Your task to perform on an android device: allow notifications from all sites in the chrome app Image 0: 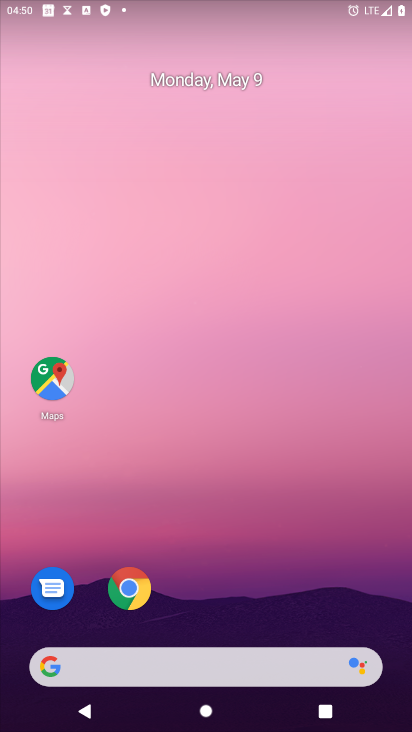
Step 0: click (137, 588)
Your task to perform on an android device: allow notifications from all sites in the chrome app Image 1: 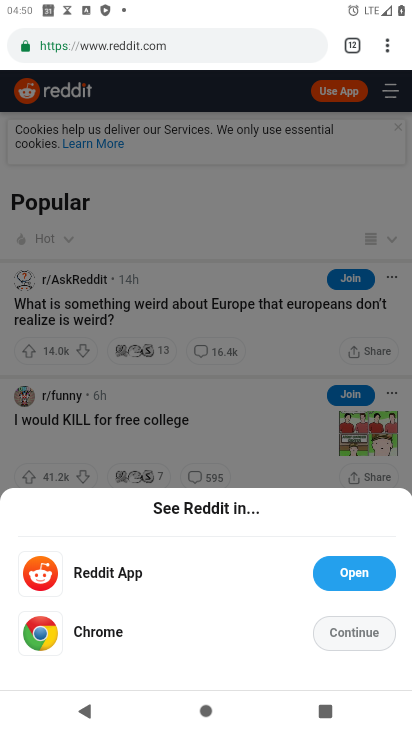
Step 1: click (381, 41)
Your task to perform on an android device: allow notifications from all sites in the chrome app Image 2: 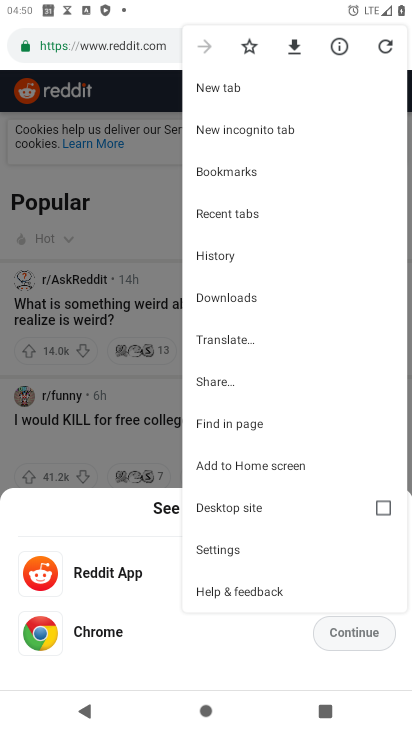
Step 2: click (239, 538)
Your task to perform on an android device: allow notifications from all sites in the chrome app Image 3: 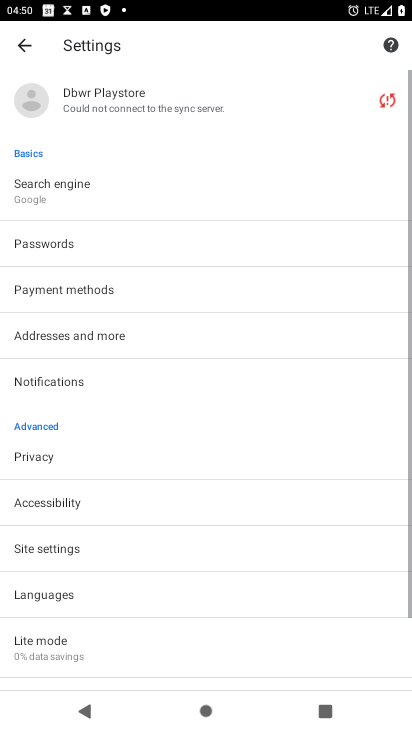
Step 3: click (81, 548)
Your task to perform on an android device: allow notifications from all sites in the chrome app Image 4: 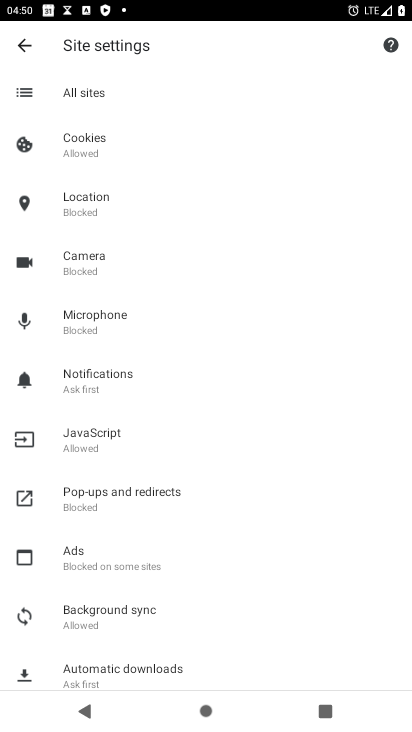
Step 4: click (129, 370)
Your task to perform on an android device: allow notifications from all sites in the chrome app Image 5: 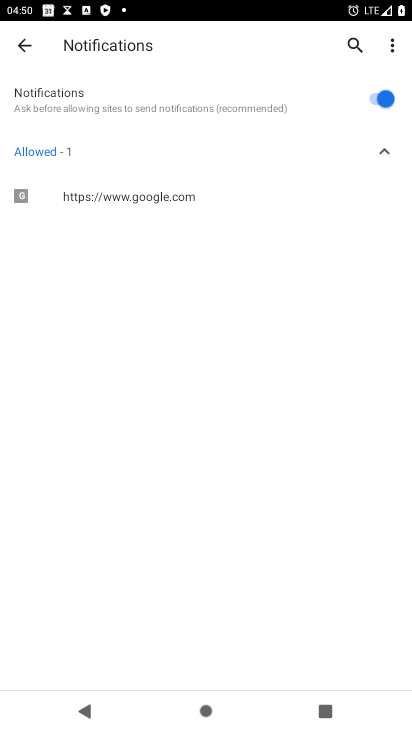
Step 5: task complete